Your task to perform on an android device: Open Google Chrome and open the bookmarks view Image 0: 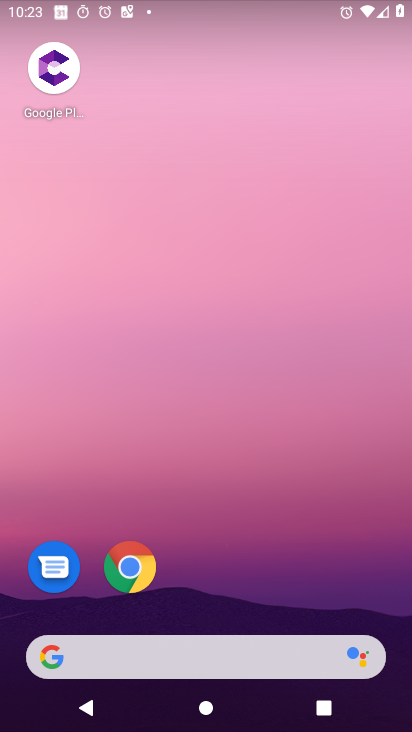
Step 0: drag from (227, 599) to (307, 75)
Your task to perform on an android device: Open Google Chrome and open the bookmarks view Image 1: 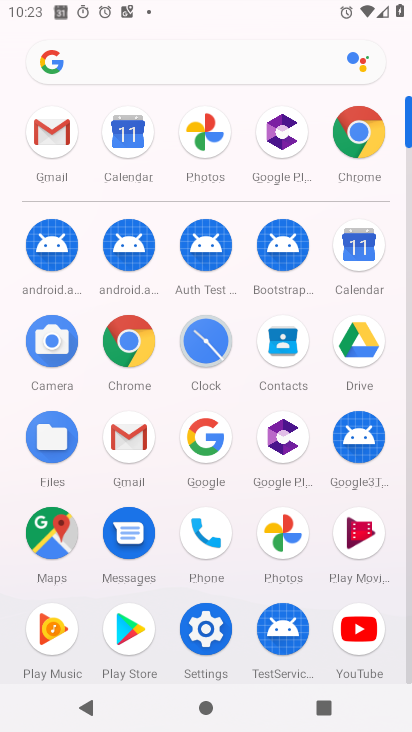
Step 1: click (136, 345)
Your task to perform on an android device: Open Google Chrome and open the bookmarks view Image 2: 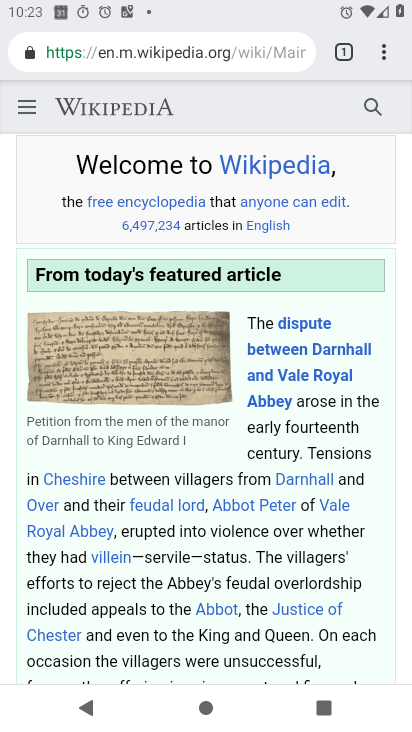
Step 2: click (374, 53)
Your task to perform on an android device: Open Google Chrome and open the bookmarks view Image 3: 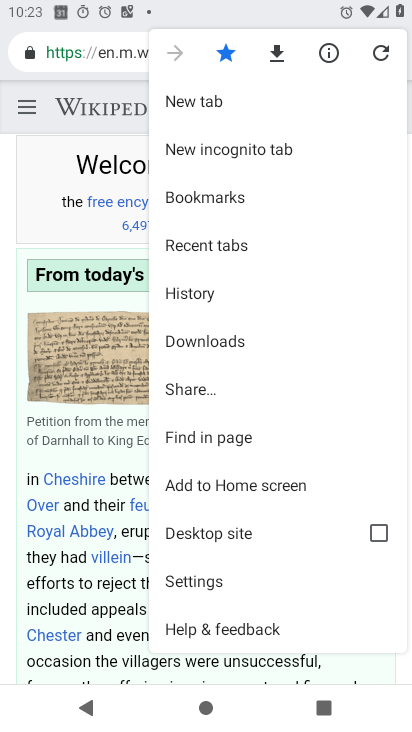
Step 3: click (208, 199)
Your task to perform on an android device: Open Google Chrome and open the bookmarks view Image 4: 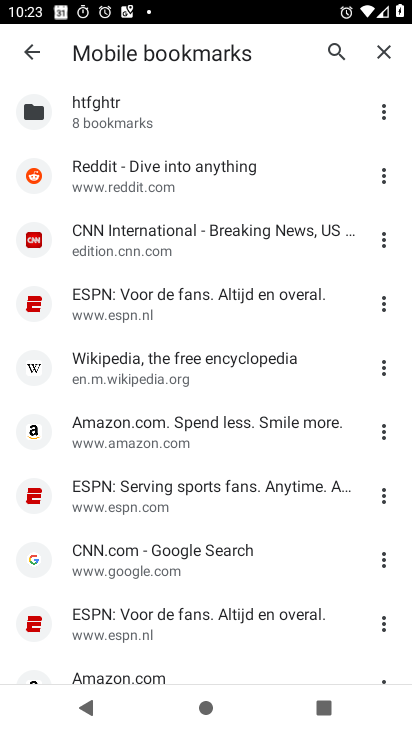
Step 4: task complete